Your task to perform on an android device: remove spam from my inbox in the gmail app Image 0: 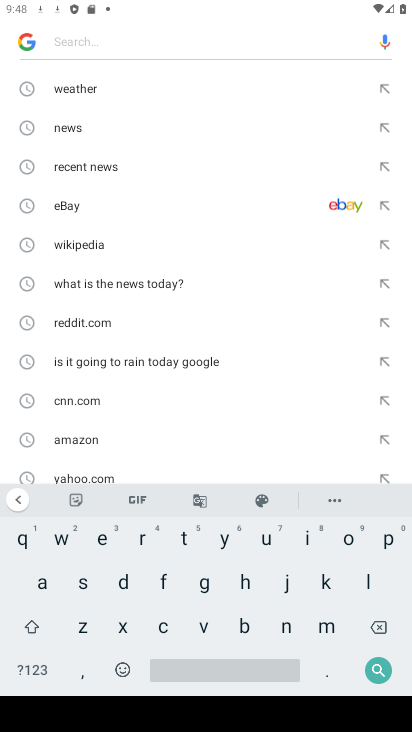
Step 0: press home button
Your task to perform on an android device: remove spam from my inbox in the gmail app Image 1: 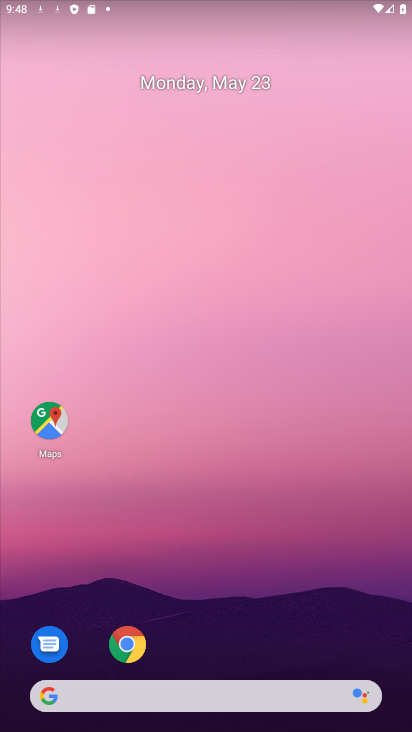
Step 1: drag from (227, 717) to (292, 42)
Your task to perform on an android device: remove spam from my inbox in the gmail app Image 2: 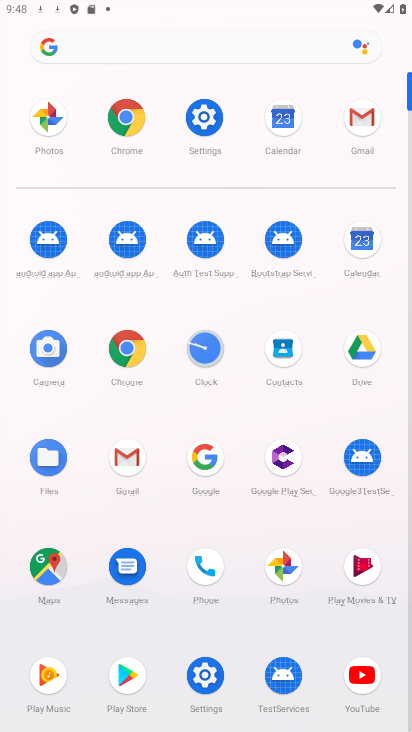
Step 2: click (349, 118)
Your task to perform on an android device: remove spam from my inbox in the gmail app Image 3: 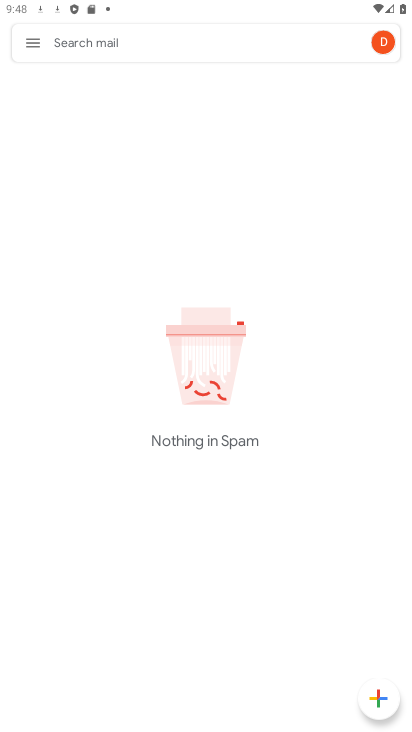
Step 3: click (26, 42)
Your task to perform on an android device: remove spam from my inbox in the gmail app Image 4: 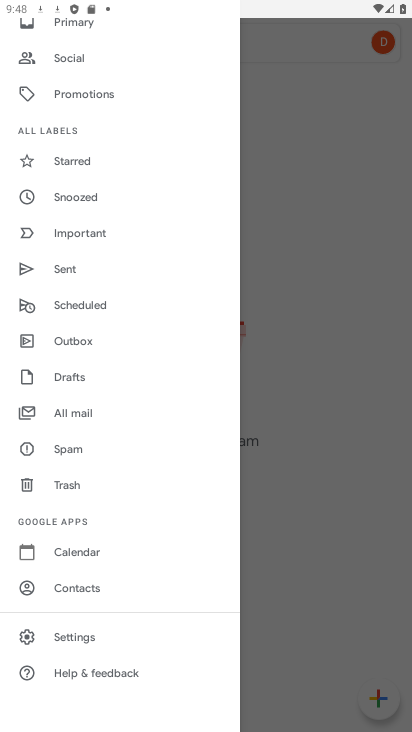
Step 4: click (69, 447)
Your task to perform on an android device: remove spam from my inbox in the gmail app Image 5: 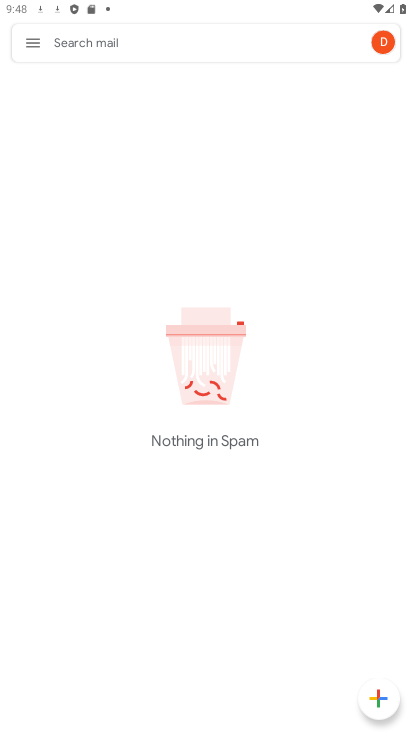
Step 5: click (28, 42)
Your task to perform on an android device: remove spam from my inbox in the gmail app Image 6: 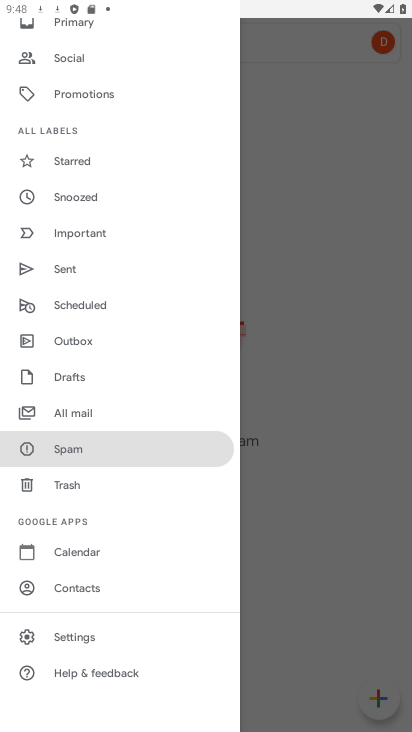
Step 6: click (111, 444)
Your task to perform on an android device: remove spam from my inbox in the gmail app Image 7: 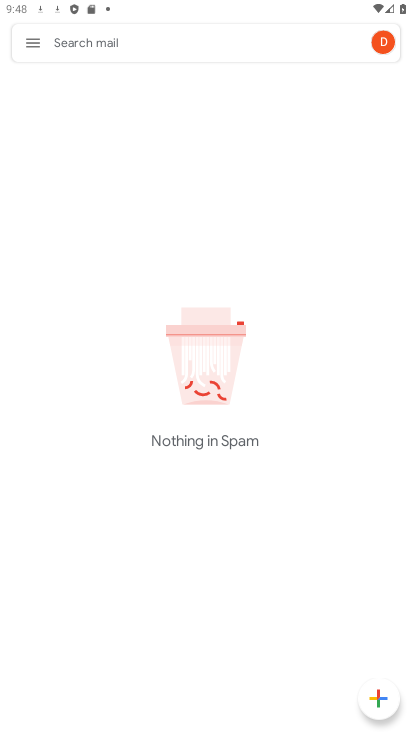
Step 7: task complete